Your task to perform on an android device: turn vacation reply on in the gmail app Image 0: 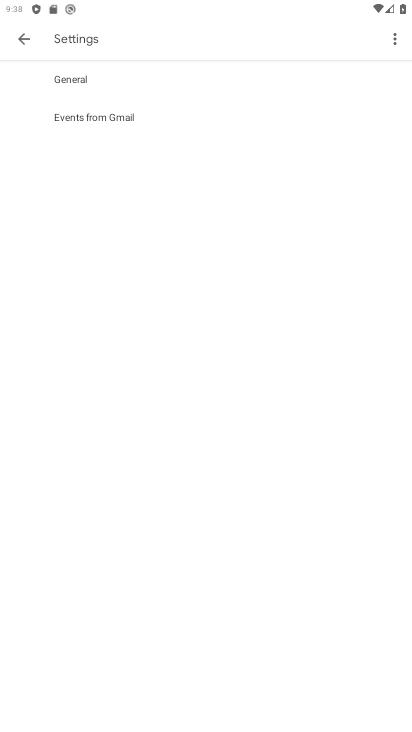
Step 0: click (22, 39)
Your task to perform on an android device: turn vacation reply on in the gmail app Image 1: 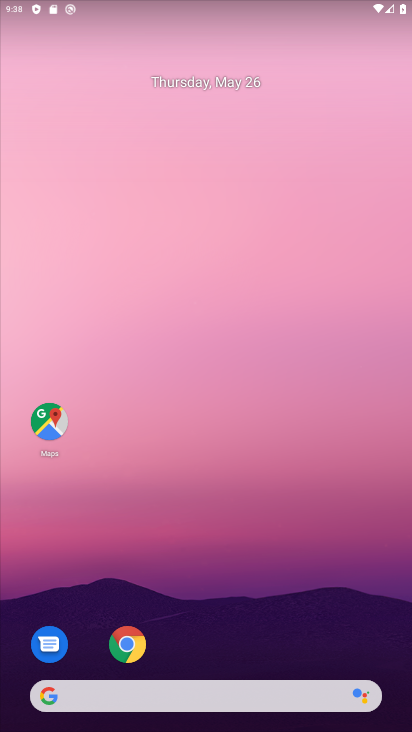
Step 1: drag from (155, 292) to (108, 163)
Your task to perform on an android device: turn vacation reply on in the gmail app Image 2: 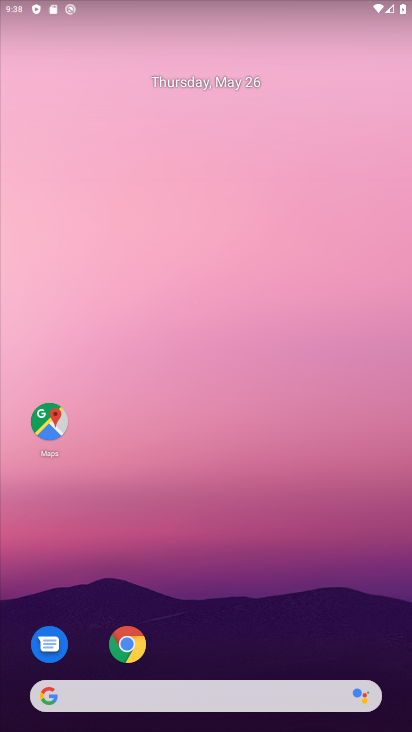
Step 2: drag from (242, 514) to (110, 58)
Your task to perform on an android device: turn vacation reply on in the gmail app Image 3: 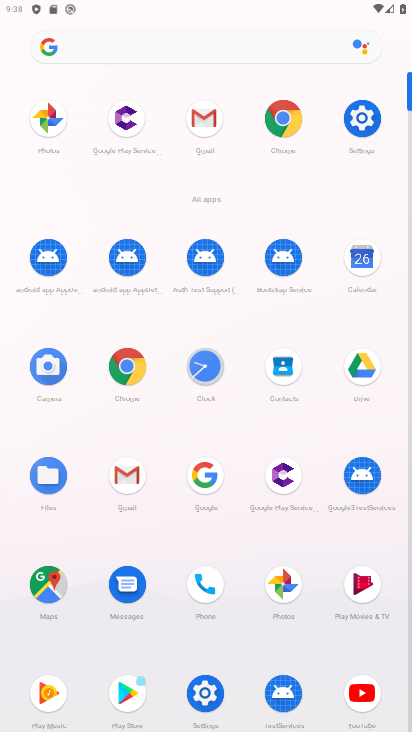
Step 3: drag from (290, 553) to (153, 20)
Your task to perform on an android device: turn vacation reply on in the gmail app Image 4: 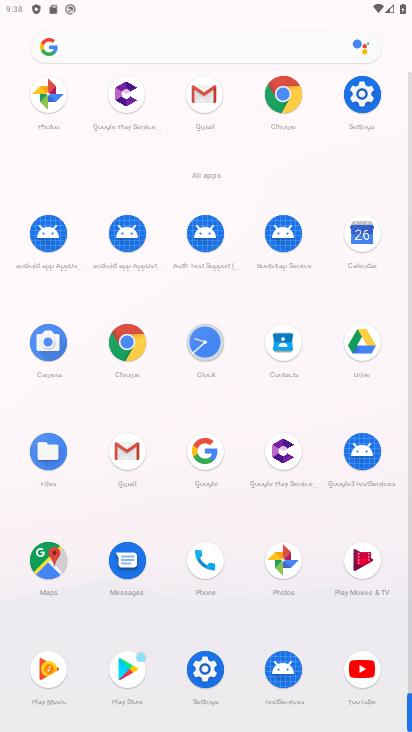
Step 4: click (130, 450)
Your task to perform on an android device: turn vacation reply on in the gmail app Image 5: 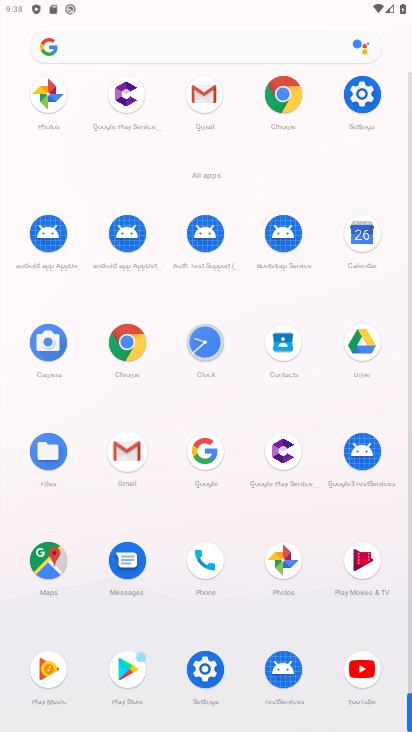
Step 5: click (131, 444)
Your task to perform on an android device: turn vacation reply on in the gmail app Image 6: 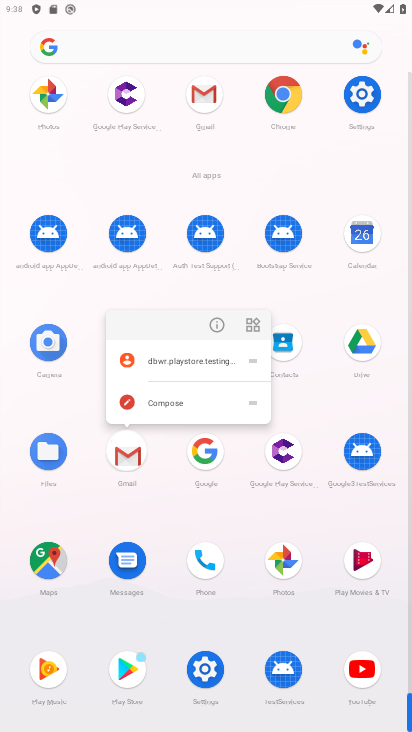
Step 6: click (129, 434)
Your task to perform on an android device: turn vacation reply on in the gmail app Image 7: 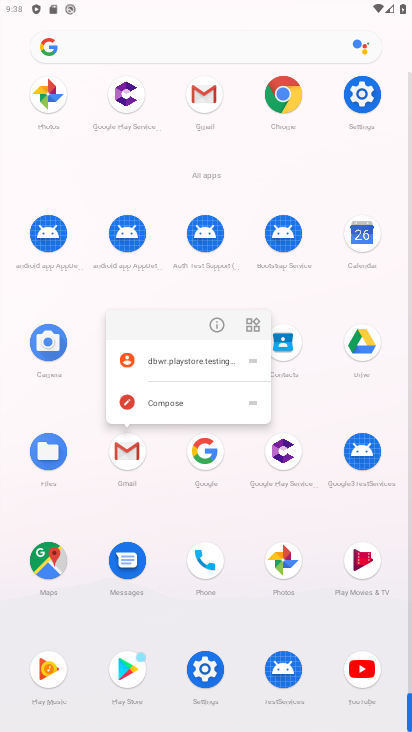
Step 7: click (136, 442)
Your task to perform on an android device: turn vacation reply on in the gmail app Image 8: 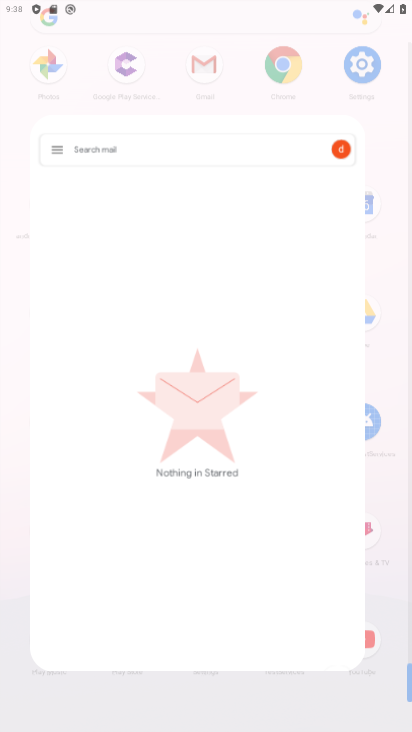
Step 8: click (136, 440)
Your task to perform on an android device: turn vacation reply on in the gmail app Image 9: 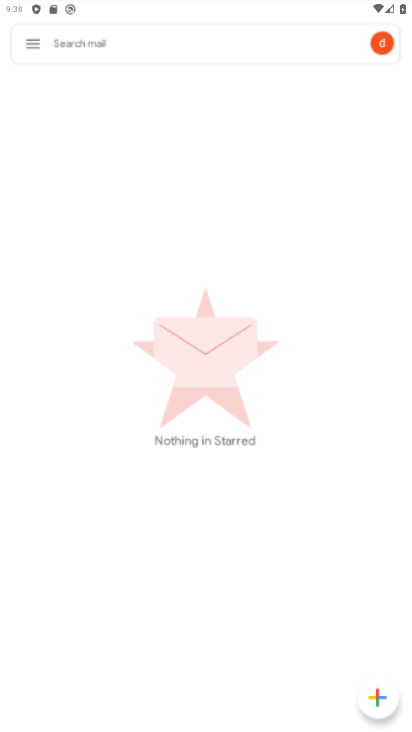
Step 9: click (135, 440)
Your task to perform on an android device: turn vacation reply on in the gmail app Image 10: 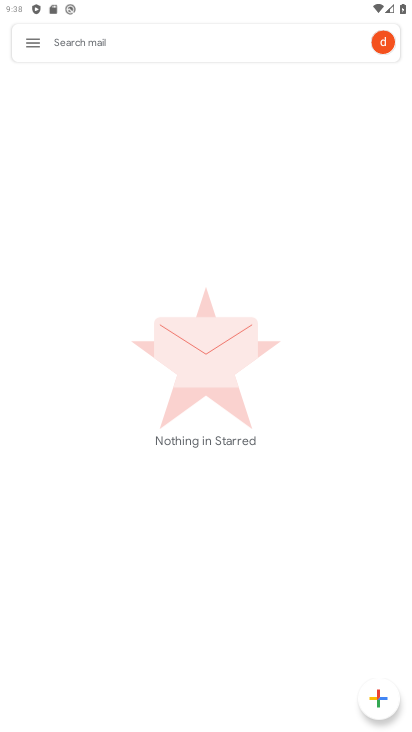
Step 10: click (134, 439)
Your task to perform on an android device: turn vacation reply on in the gmail app Image 11: 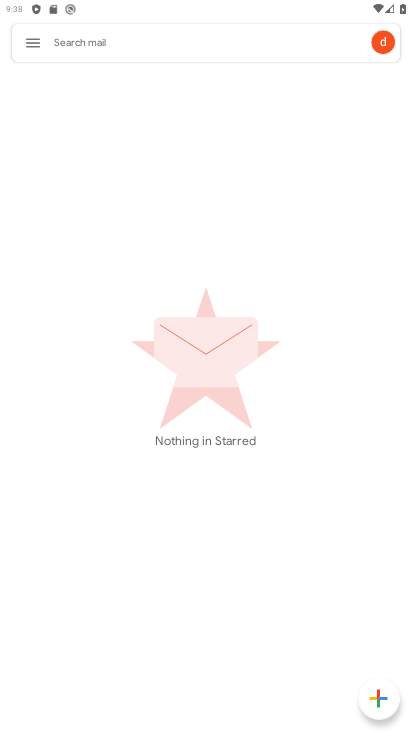
Step 11: click (28, 44)
Your task to perform on an android device: turn vacation reply on in the gmail app Image 12: 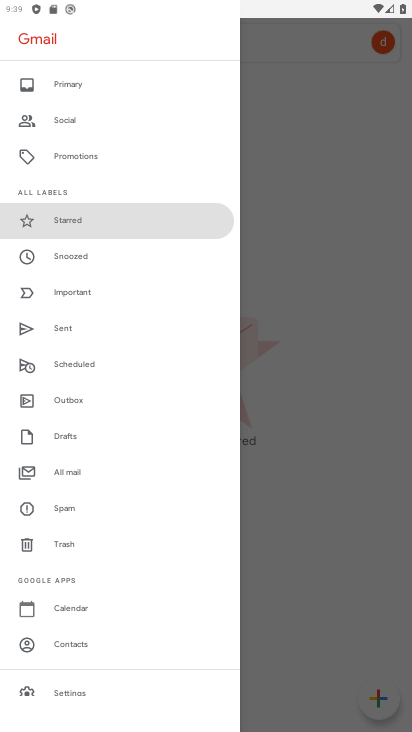
Step 12: click (60, 702)
Your task to perform on an android device: turn vacation reply on in the gmail app Image 13: 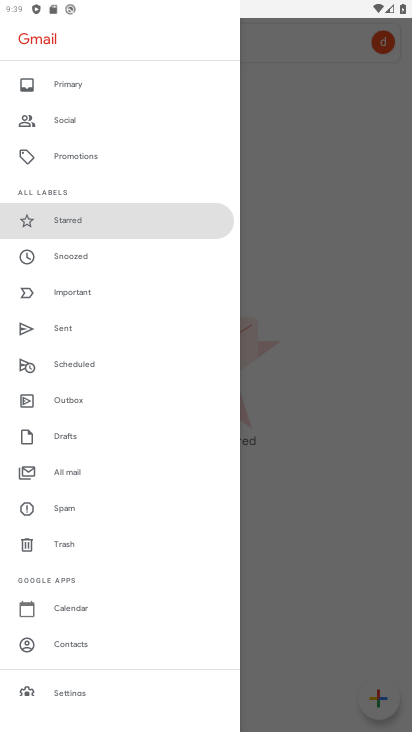
Step 13: click (62, 699)
Your task to perform on an android device: turn vacation reply on in the gmail app Image 14: 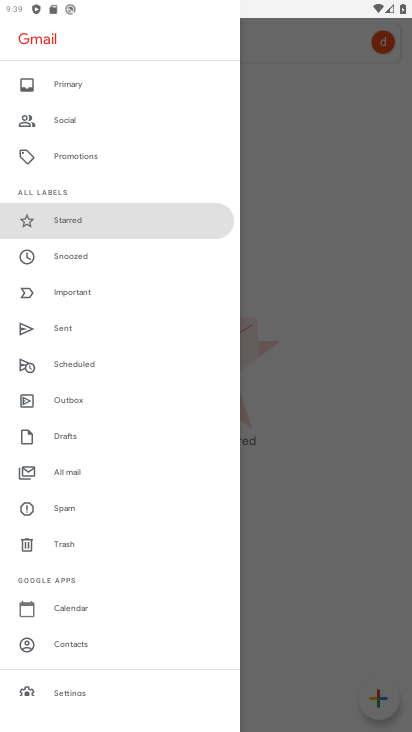
Step 14: click (65, 694)
Your task to perform on an android device: turn vacation reply on in the gmail app Image 15: 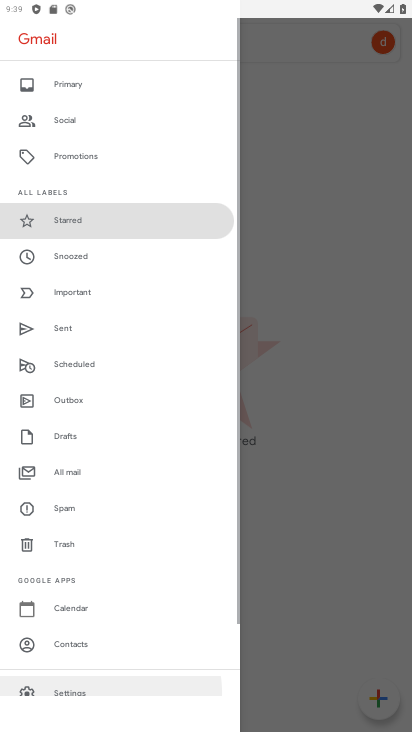
Step 15: click (73, 687)
Your task to perform on an android device: turn vacation reply on in the gmail app Image 16: 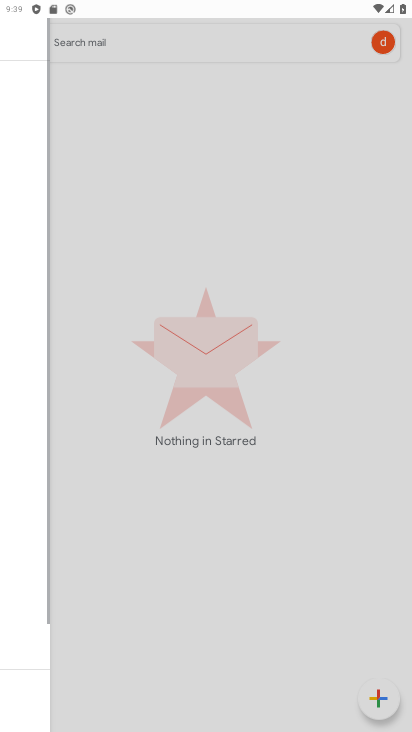
Step 16: click (74, 684)
Your task to perform on an android device: turn vacation reply on in the gmail app Image 17: 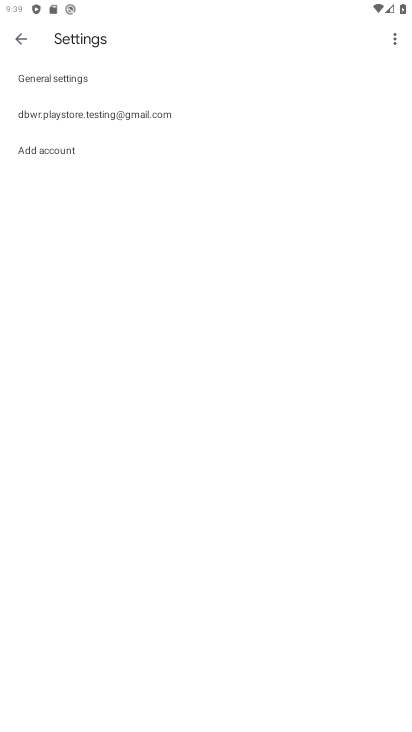
Step 17: click (84, 110)
Your task to perform on an android device: turn vacation reply on in the gmail app Image 18: 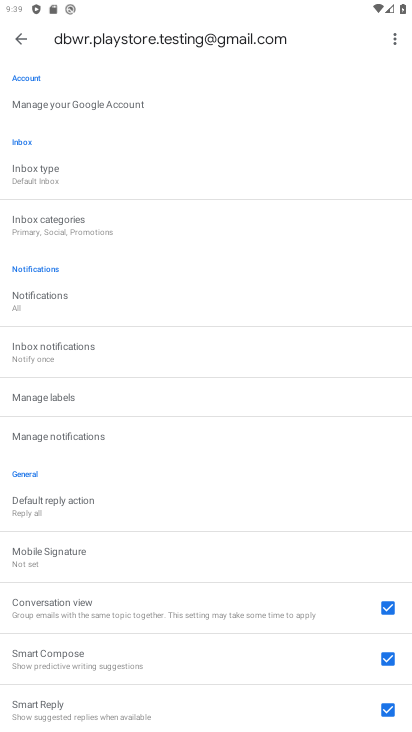
Step 18: task complete